Your task to perform on an android device: allow notifications from all sites in the chrome app Image 0: 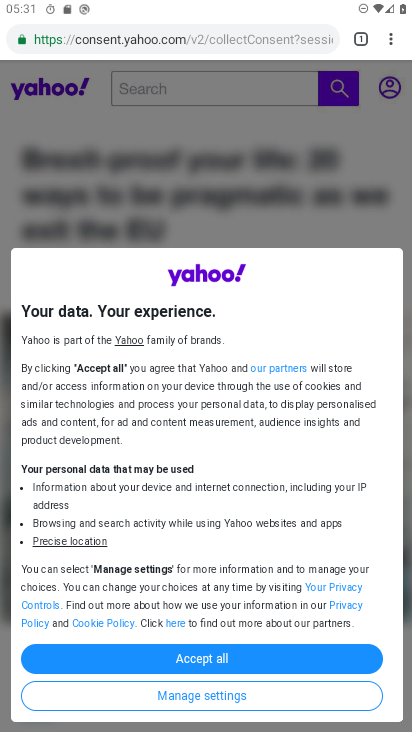
Step 0: press home button
Your task to perform on an android device: allow notifications from all sites in the chrome app Image 1: 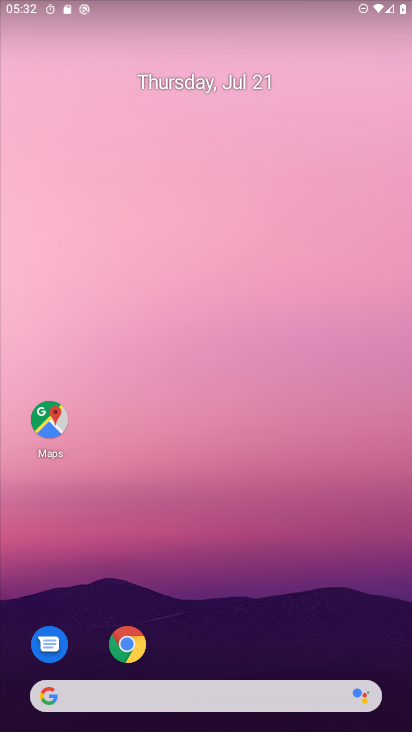
Step 1: drag from (182, 431) to (185, 259)
Your task to perform on an android device: allow notifications from all sites in the chrome app Image 2: 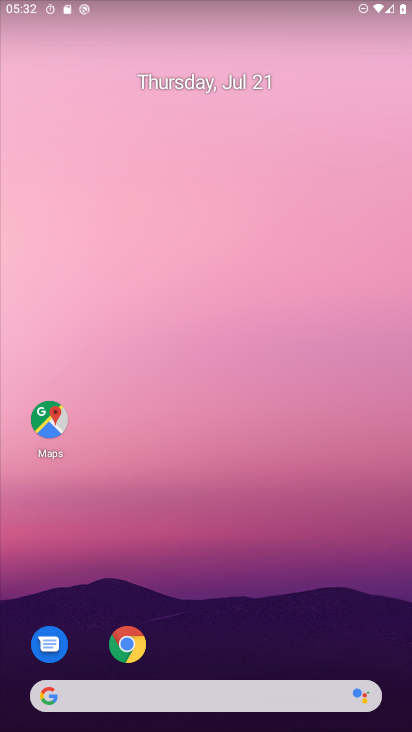
Step 2: click (120, 644)
Your task to perform on an android device: allow notifications from all sites in the chrome app Image 3: 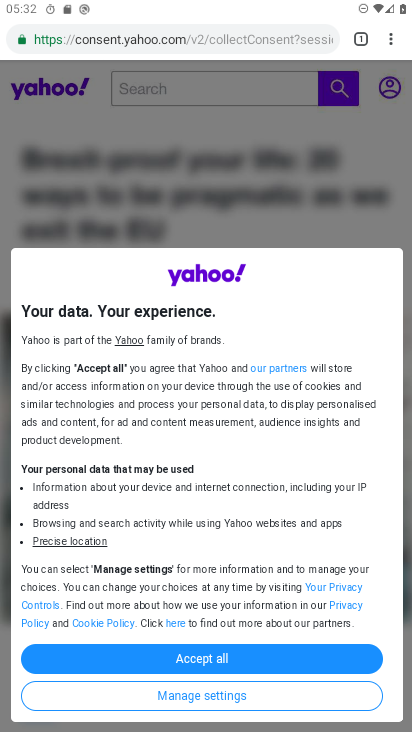
Step 3: click (393, 39)
Your task to perform on an android device: allow notifications from all sites in the chrome app Image 4: 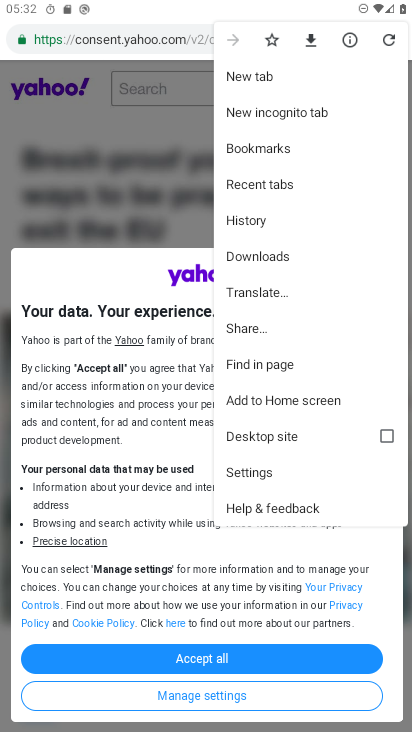
Step 4: click (261, 475)
Your task to perform on an android device: allow notifications from all sites in the chrome app Image 5: 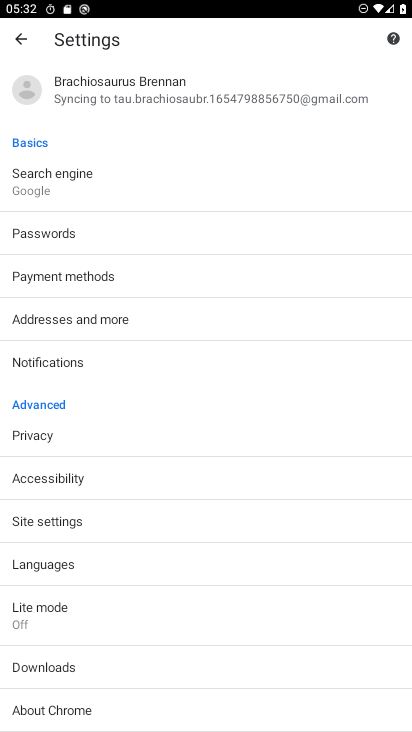
Step 5: click (60, 364)
Your task to perform on an android device: allow notifications from all sites in the chrome app Image 6: 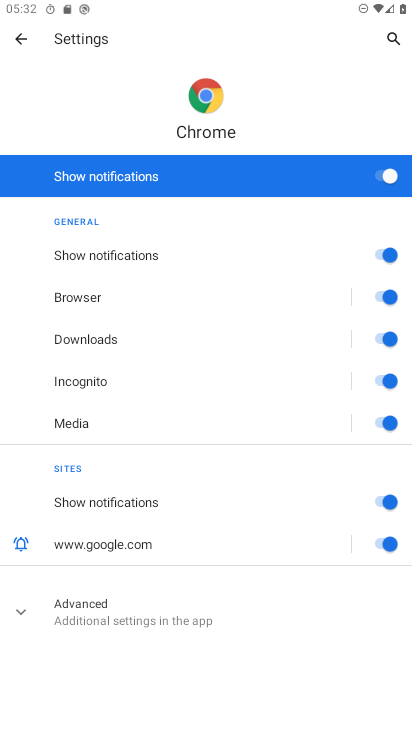
Step 6: task complete